Your task to perform on an android device: Open calendar and show me the fourth week of next month Image 0: 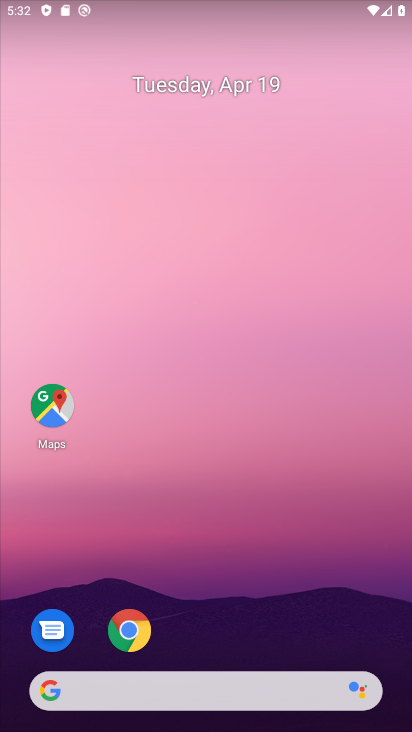
Step 0: drag from (260, 631) to (260, 8)
Your task to perform on an android device: Open calendar and show me the fourth week of next month Image 1: 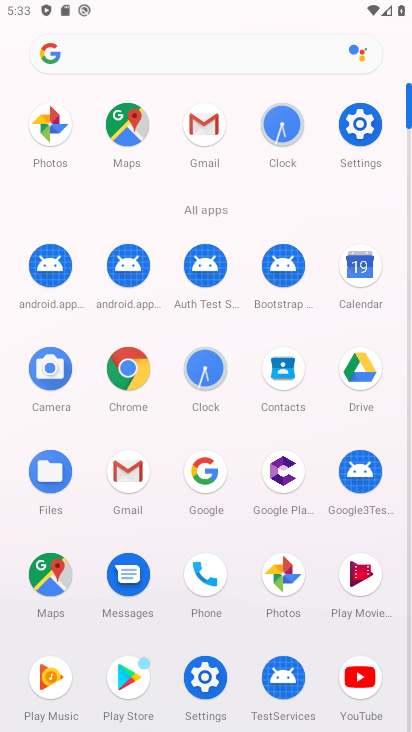
Step 1: click (346, 275)
Your task to perform on an android device: Open calendar and show me the fourth week of next month Image 2: 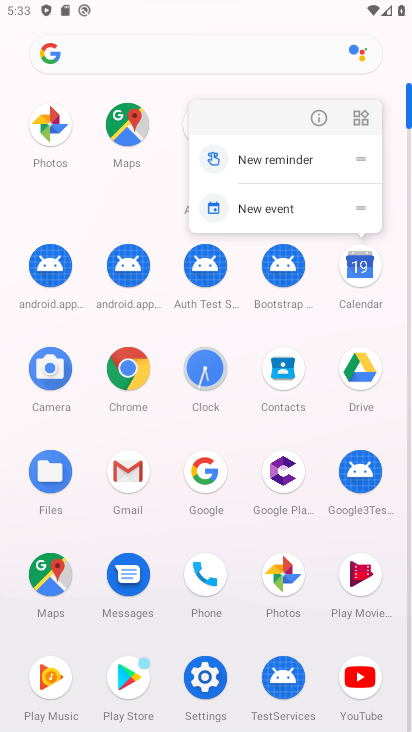
Step 2: click (366, 265)
Your task to perform on an android device: Open calendar and show me the fourth week of next month Image 3: 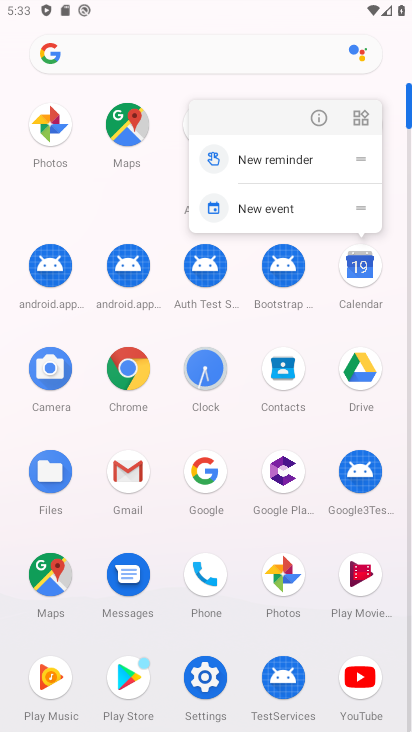
Step 3: click (343, 268)
Your task to perform on an android device: Open calendar and show me the fourth week of next month Image 4: 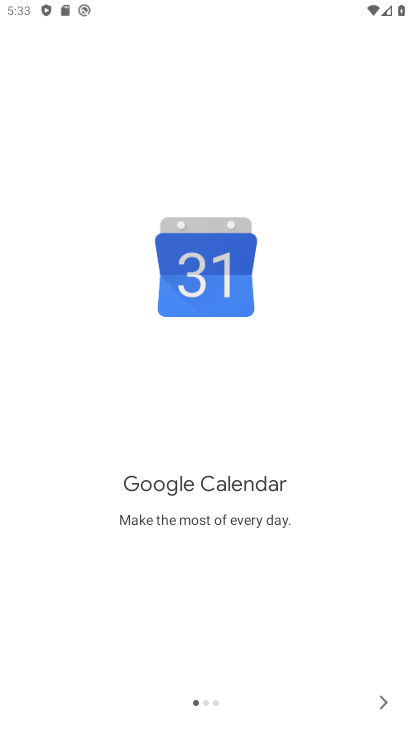
Step 4: click (380, 708)
Your task to perform on an android device: Open calendar and show me the fourth week of next month Image 5: 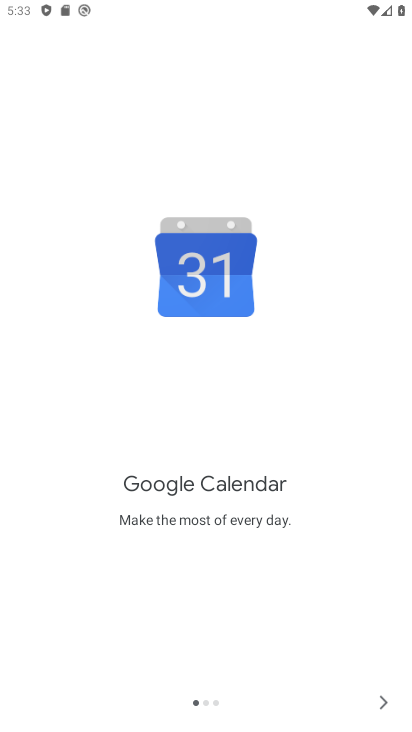
Step 5: click (380, 708)
Your task to perform on an android device: Open calendar and show me the fourth week of next month Image 6: 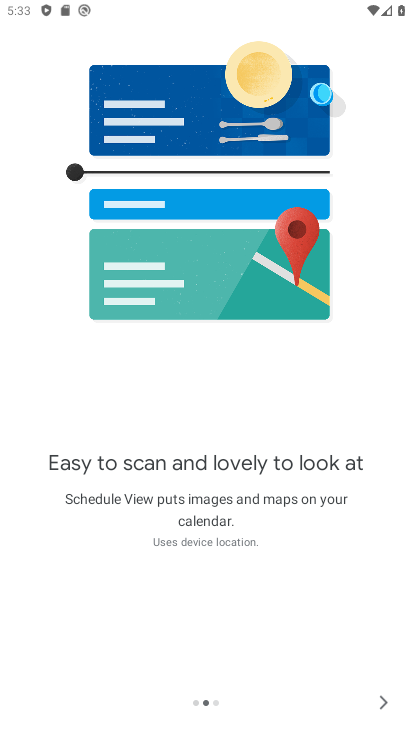
Step 6: click (380, 708)
Your task to perform on an android device: Open calendar and show me the fourth week of next month Image 7: 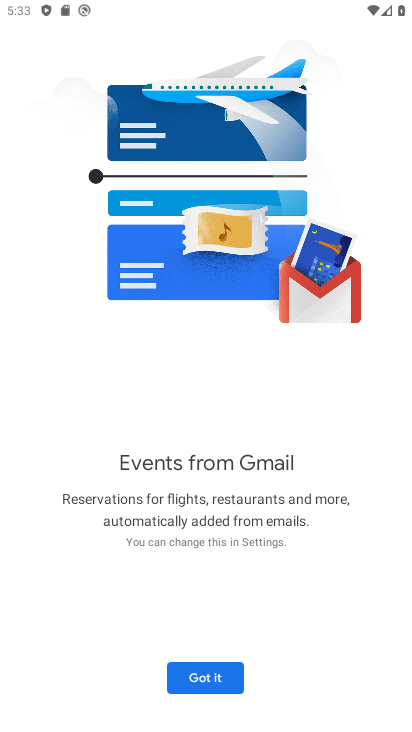
Step 7: click (380, 708)
Your task to perform on an android device: Open calendar and show me the fourth week of next month Image 8: 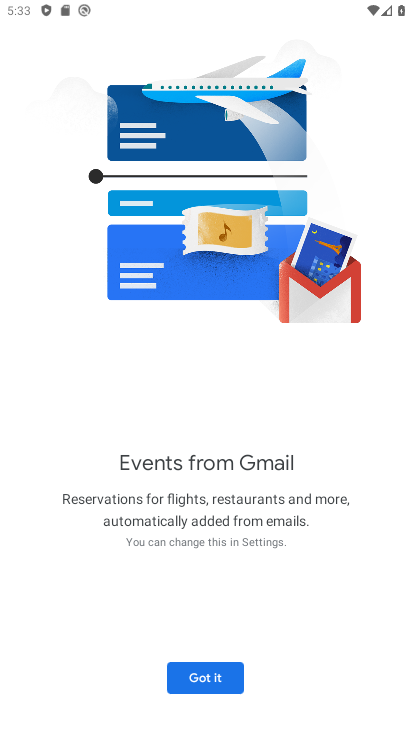
Step 8: click (202, 681)
Your task to perform on an android device: Open calendar and show me the fourth week of next month Image 9: 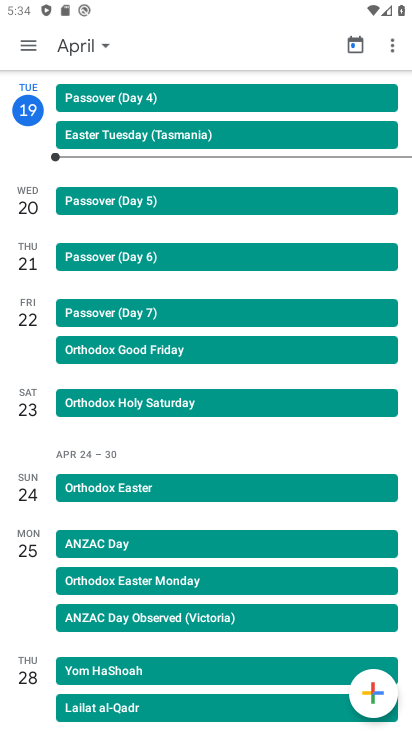
Step 9: click (84, 43)
Your task to perform on an android device: Open calendar and show me the fourth week of next month Image 10: 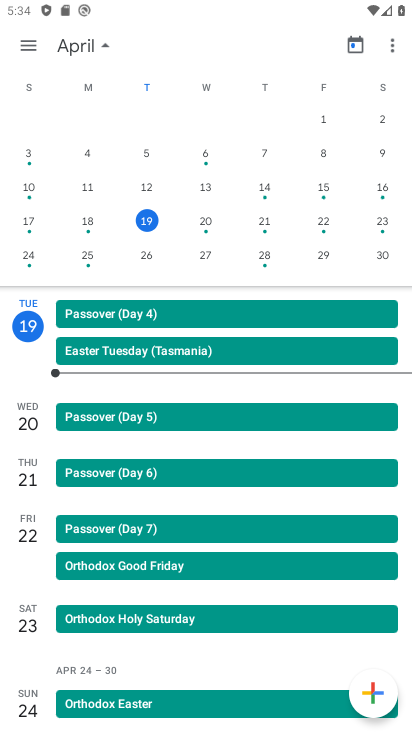
Step 10: drag from (394, 149) to (41, 187)
Your task to perform on an android device: Open calendar and show me the fourth week of next month Image 11: 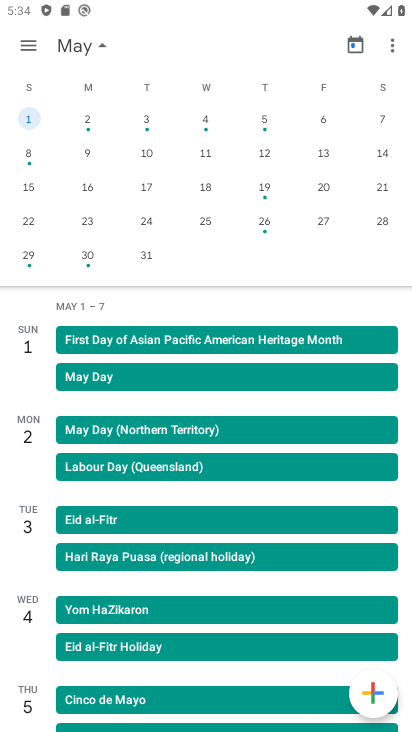
Step 11: click (27, 216)
Your task to perform on an android device: Open calendar and show me the fourth week of next month Image 12: 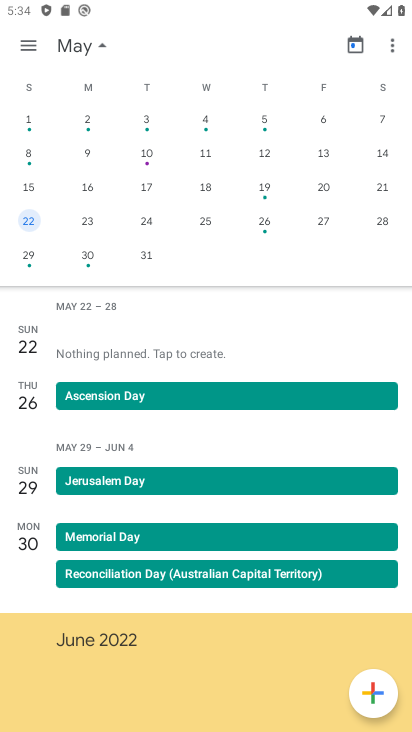
Step 12: task complete